Your task to perform on an android device: Go to Android settings Image 0: 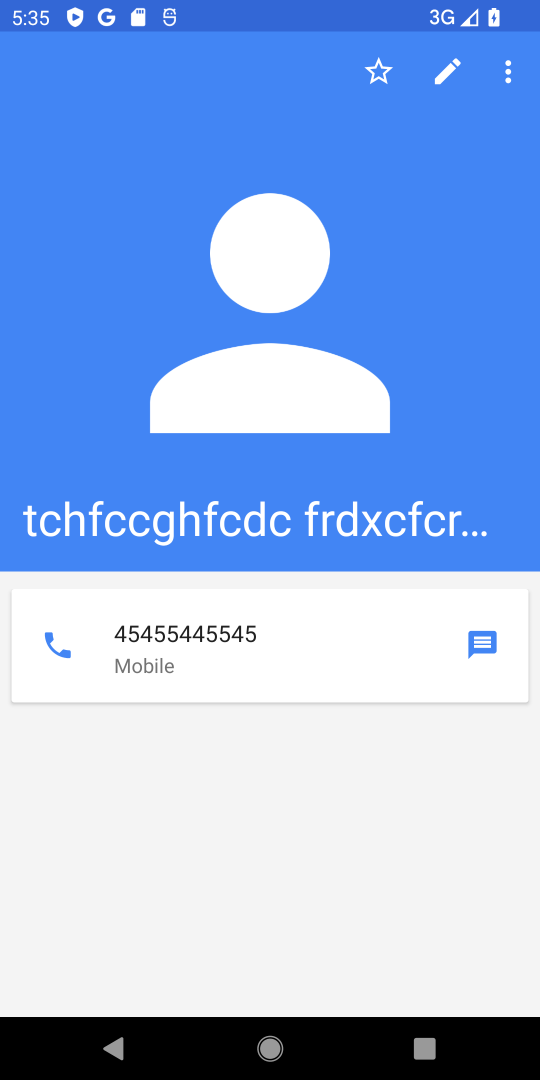
Step 0: press home button
Your task to perform on an android device: Go to Android settings Image 1: 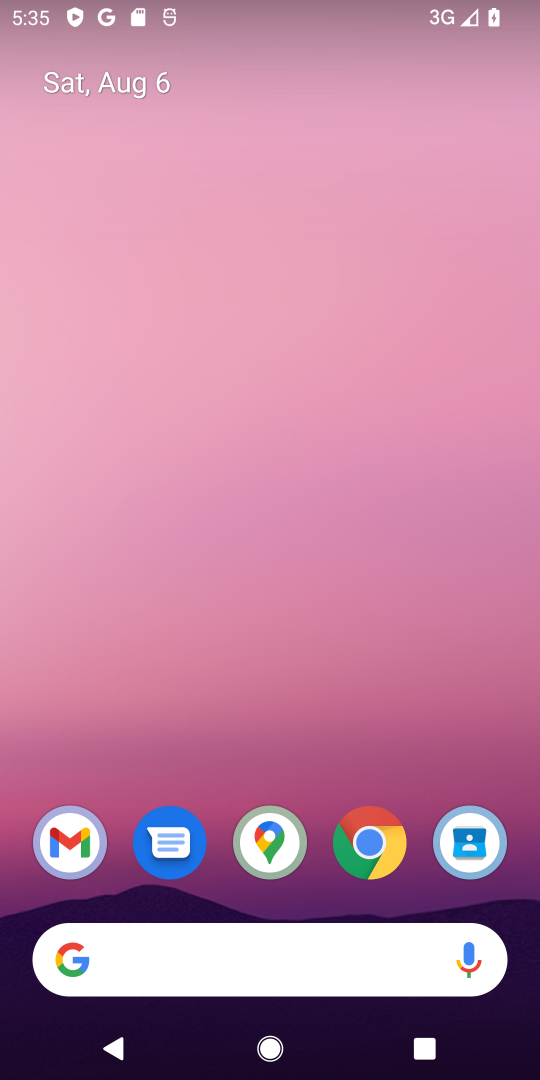
Step 1: drag from (512, 1026) to (400, 166)
Your task to perform on an android device: Go to Android settings Image 2: 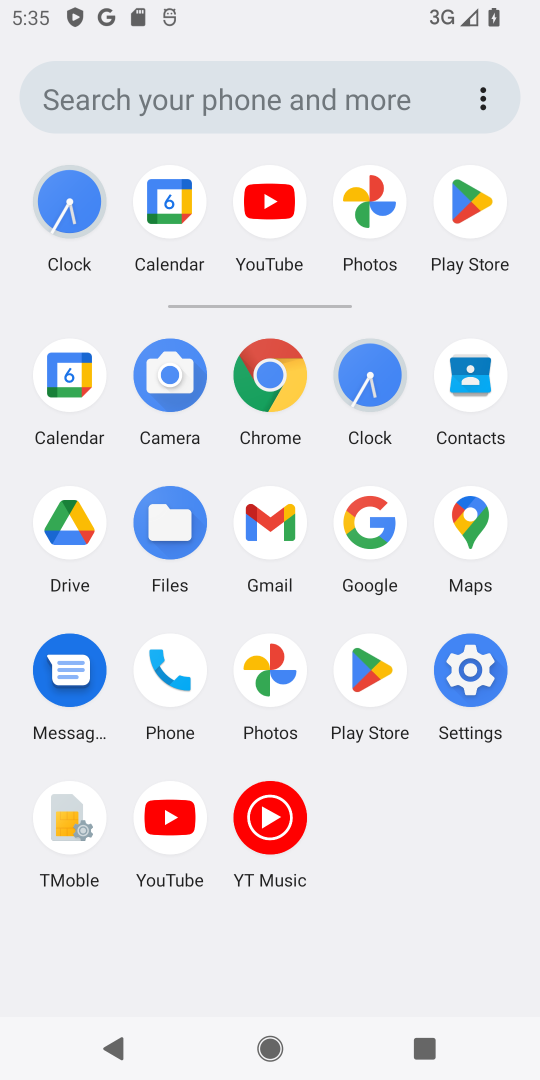
Step 2: click (486, 681)
Your task to perform on an android device: Go to Android settings Image 3: 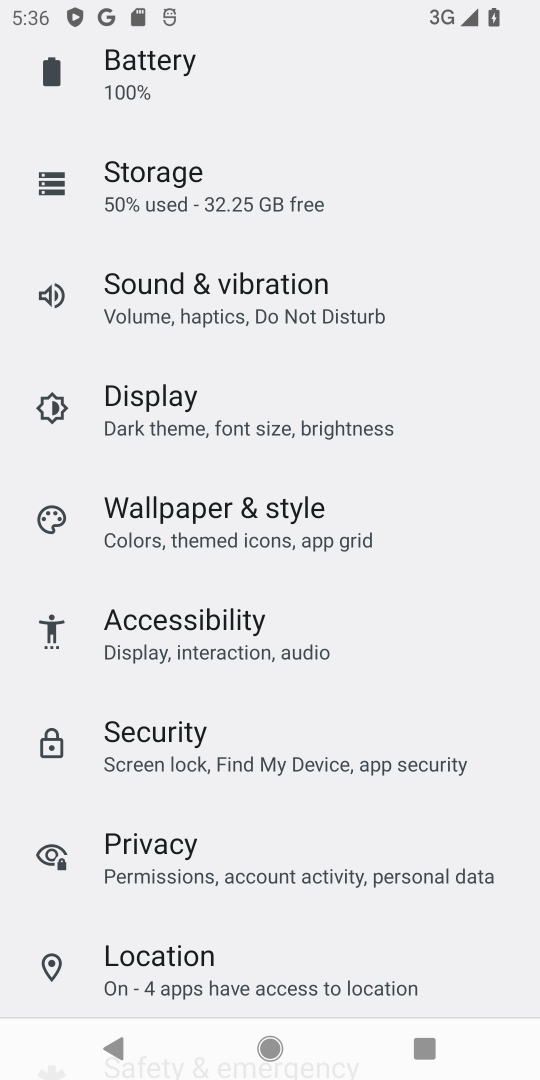
Step 3: task complete